Your task to perform on an android device: Open eBay Image 0: 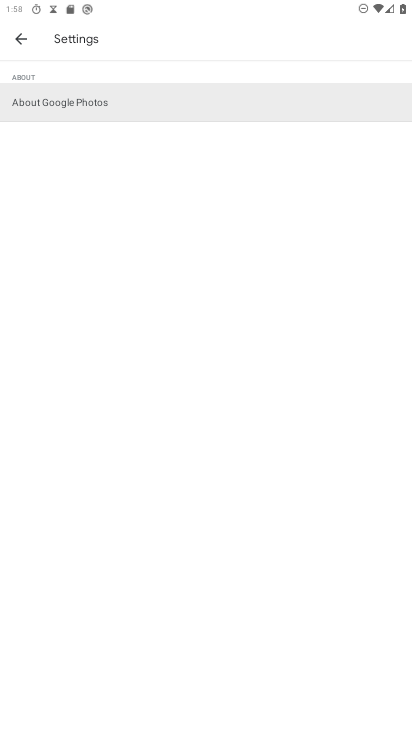
Step 0: press home button
Your task to perform on an android device: Open eBay Image 1: 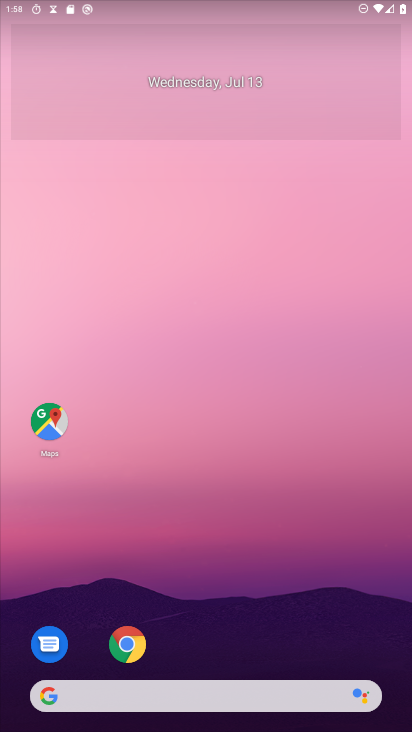
Step 1: click (80, 687)
Your task to perform on an android device: Open eBay Image 2: 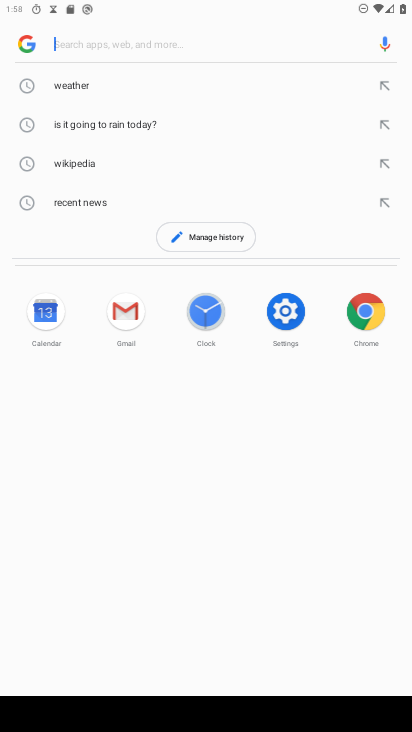
Step 2: type "eBay"
Your task to perform on an android device: Open eBay Image 3: 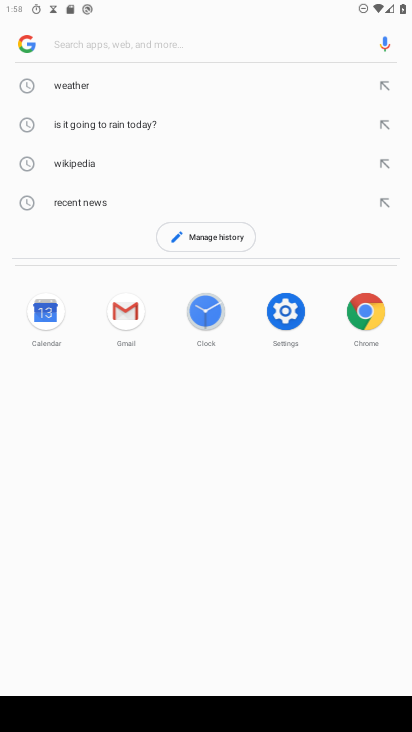
Step 3: click (100, 42)
Your task to perform on an android device: Open eBay Image 4: 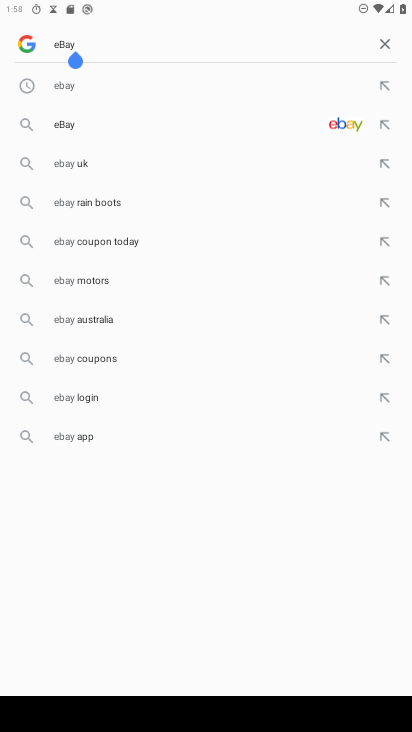
Step 4: click (67, 128)
Your task to perform on an android device: Open eBay Image 5: 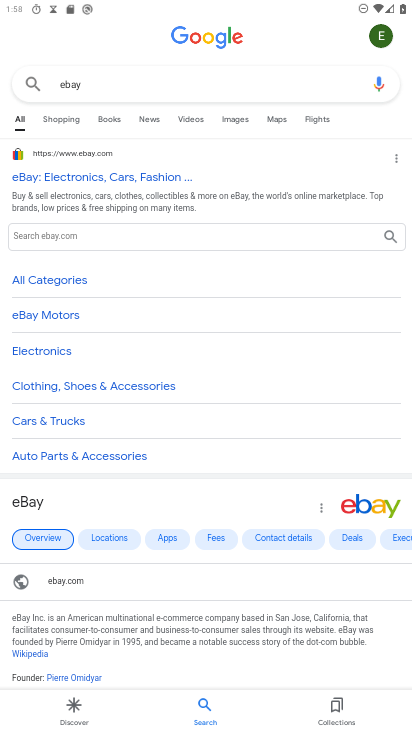
Step 5: click (63, 152)
Your task to perform on an android device: Open eBay Image 6: 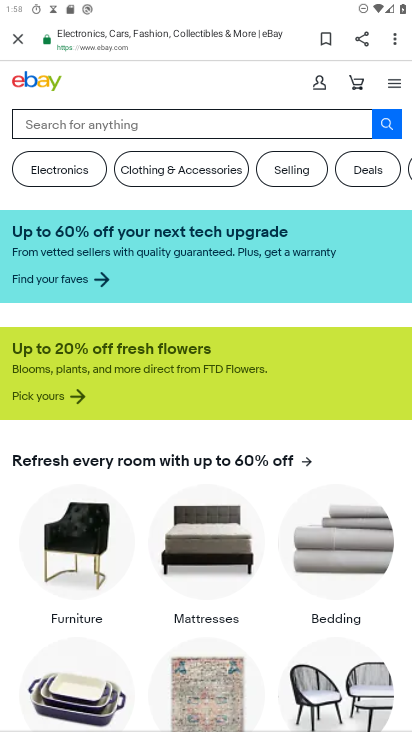
Step 6: task complete